Your task to perform on an android device: When is my next appointment? Image 0: 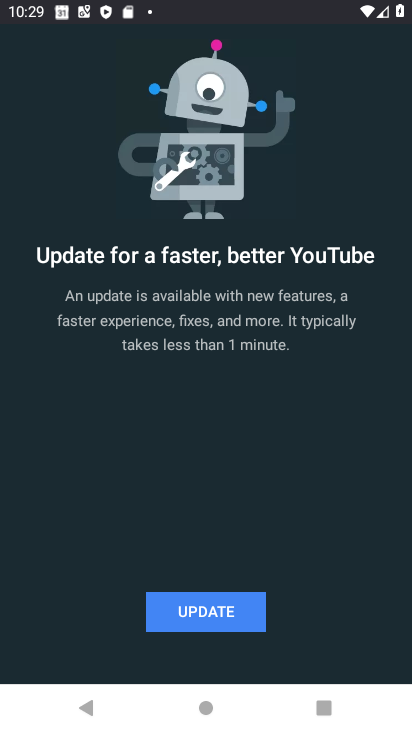
Step 0: press home button
Your task to perform on an android device: When is my next appointment? Image 1: 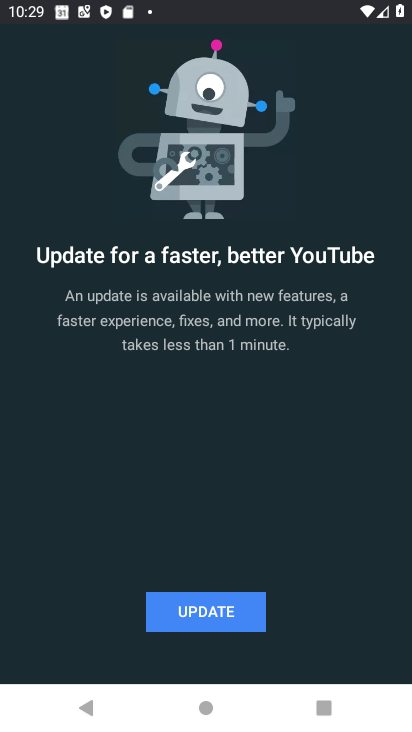
Step 1: press home button
Your task to perform on an android device: When is my next appointment? Image 2: 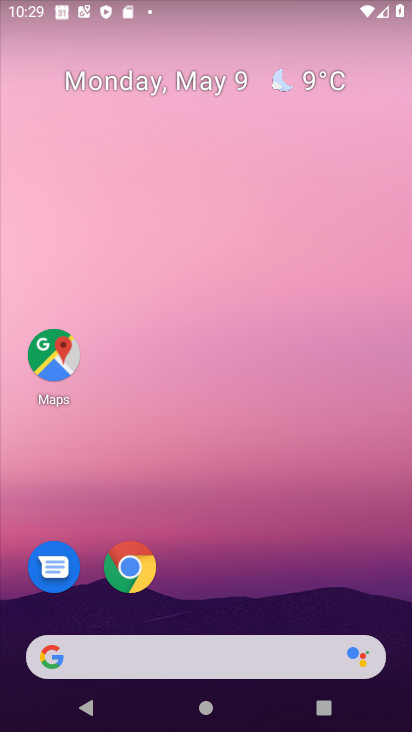
Step 2: drag from (215, 557) to (241, 188)
Your task to perform on an android device: When is my next appointment? Image 3: 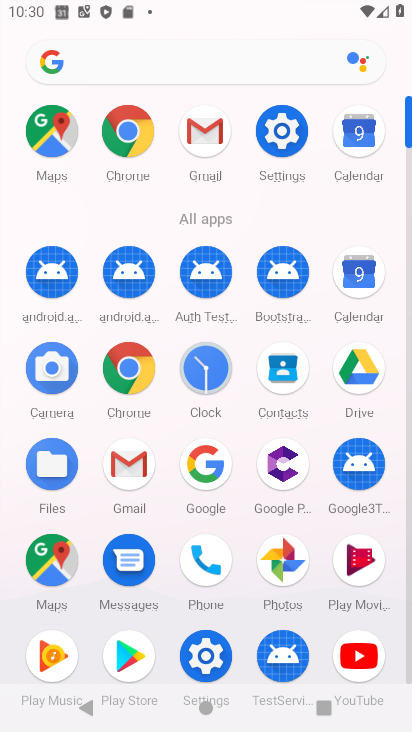
Step 3: click (354, 282)
Your task to perform on an android device: When is my next appointment? Image 4: 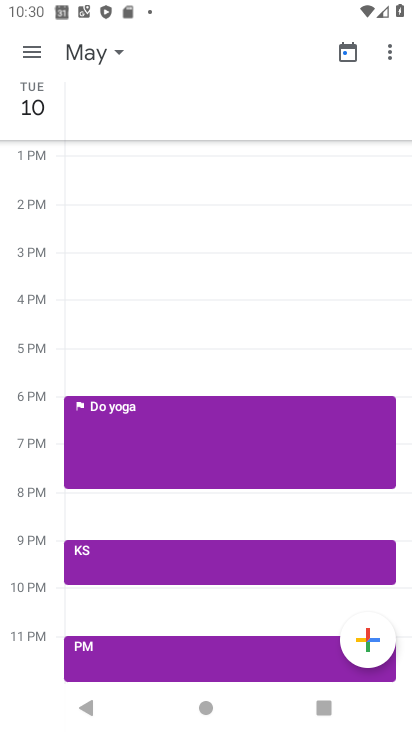
Step 4: click (48, 114)
Your task to perform on an android device: When is my next appointment? Image 5: 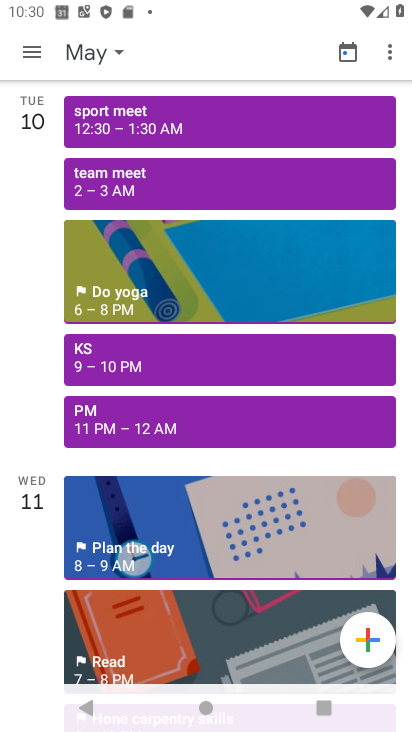
Step 5: task complete